Your task to perform on an android device: uninstall "Upside-Cash back on gas & food" Image 0: 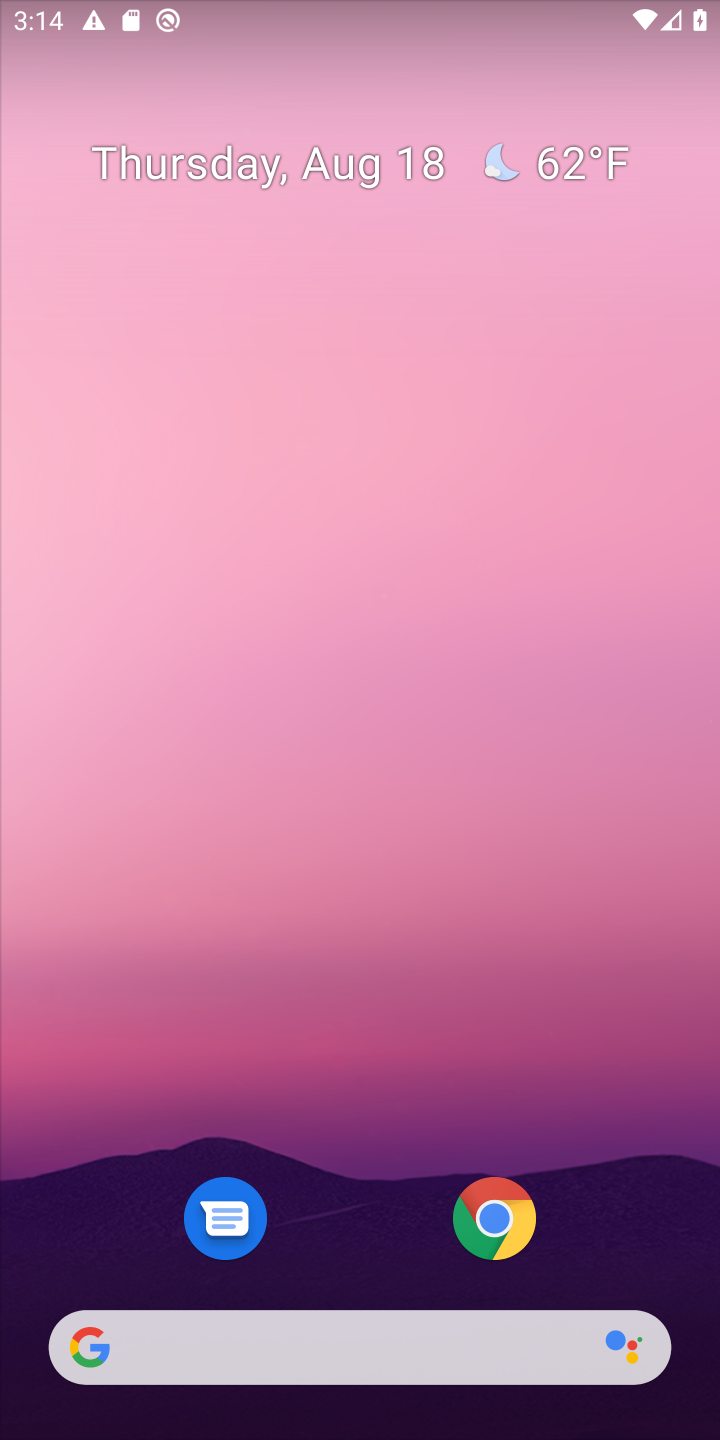
Step 0: drag from (349, 1065) to (281, 216)
Your task to perform on an android device: uninstall "Upside-Cash back on gas & food" Image 1: 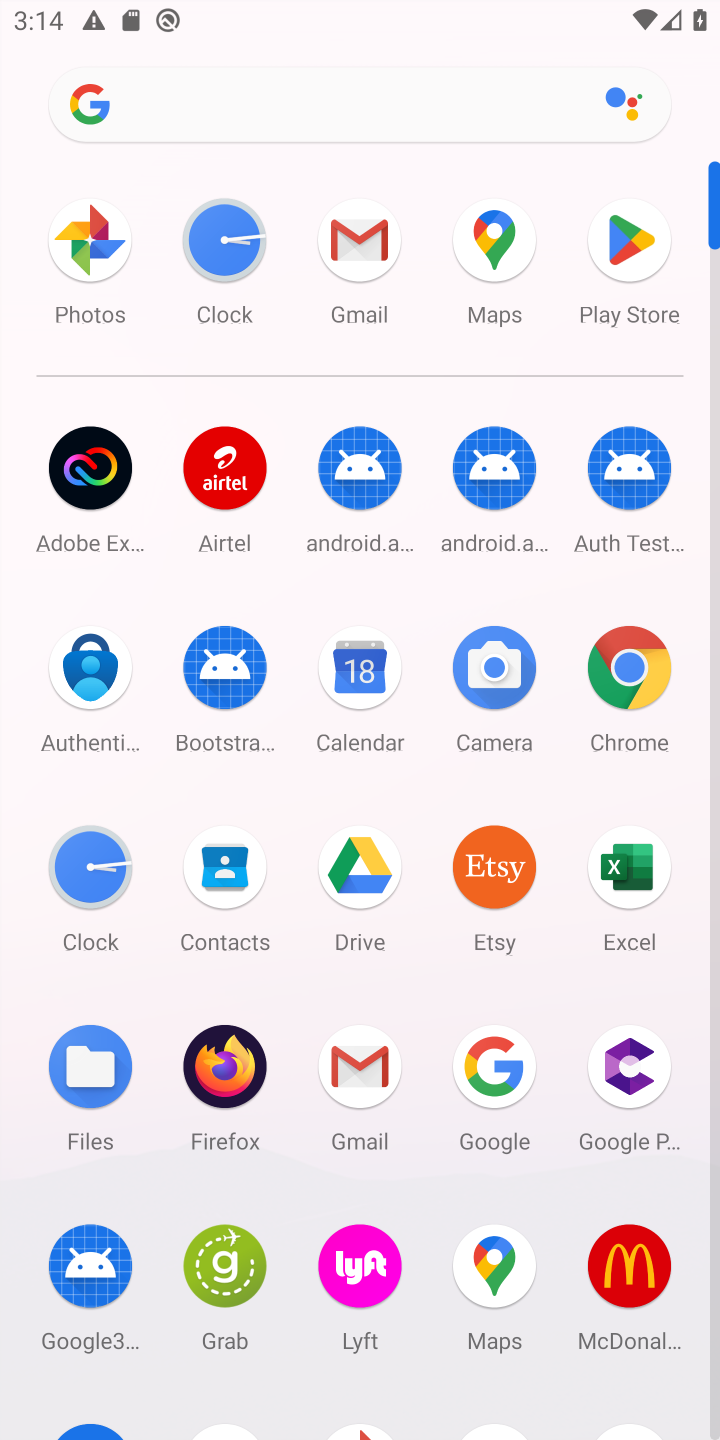
Step 1: click (625, 257)
Your task to perform on an android device: uninstall "Upside-Cash back on gas & food" Image 2: 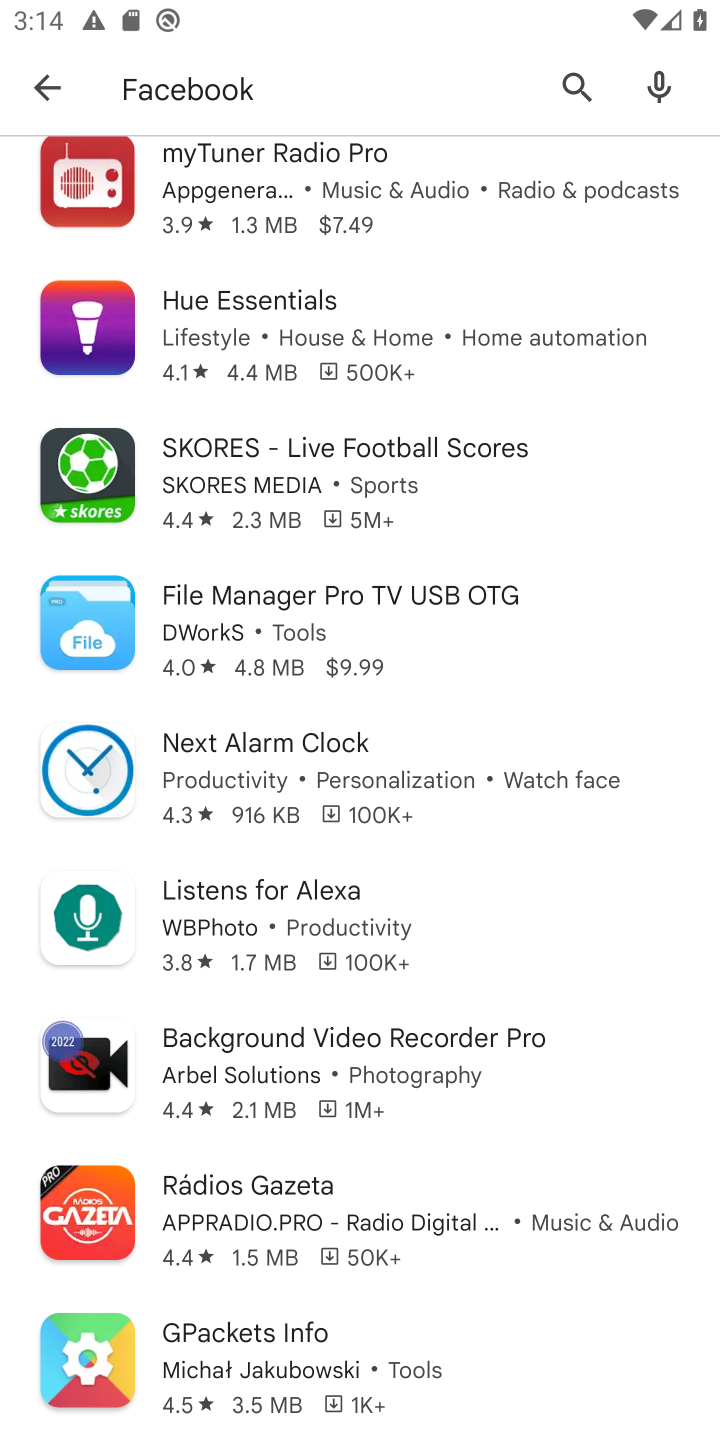
Step 2: click (566, 80)
Your task to perform on an android device: uninstall "Upside-Cash back on gas & food" Image 3: 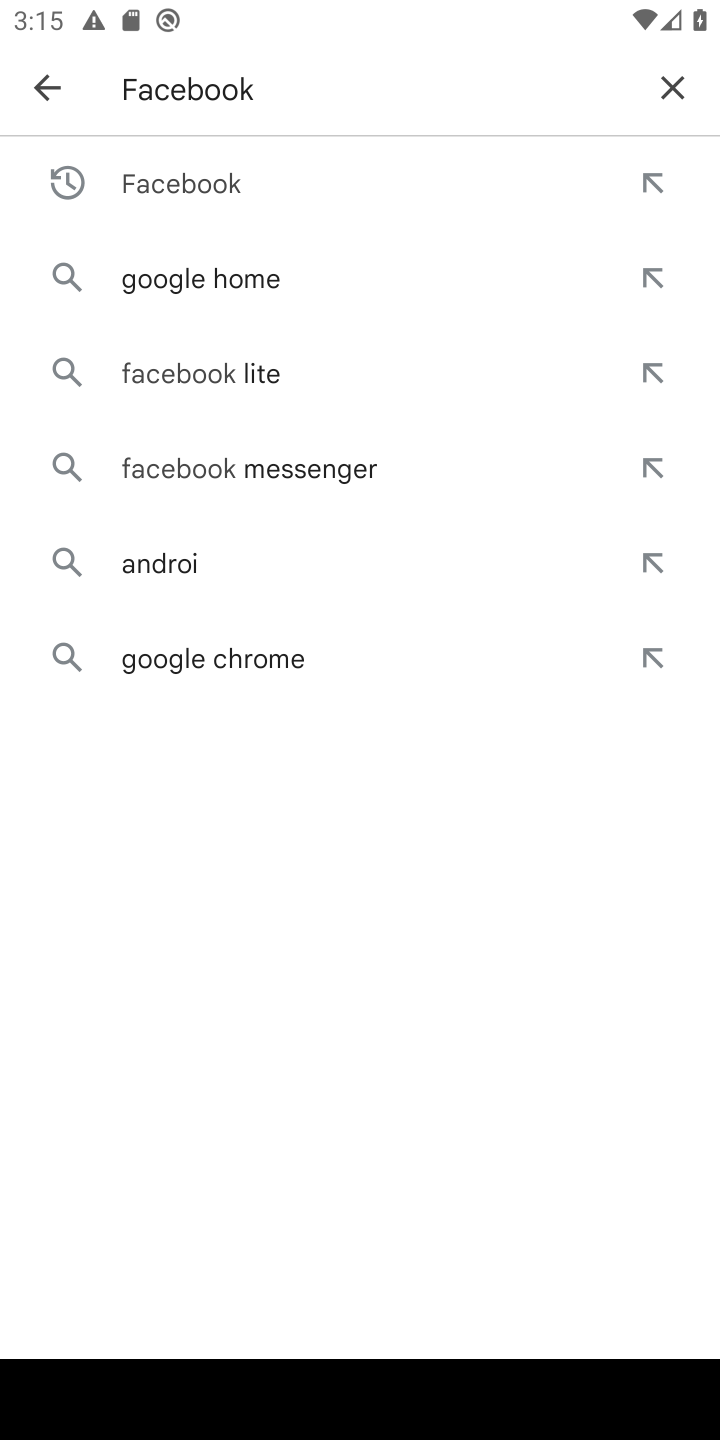
Step 3: click (658, 68)
Your task to perform on an android device: uninstall "Upside-Cash back on gas & food" Image 4: 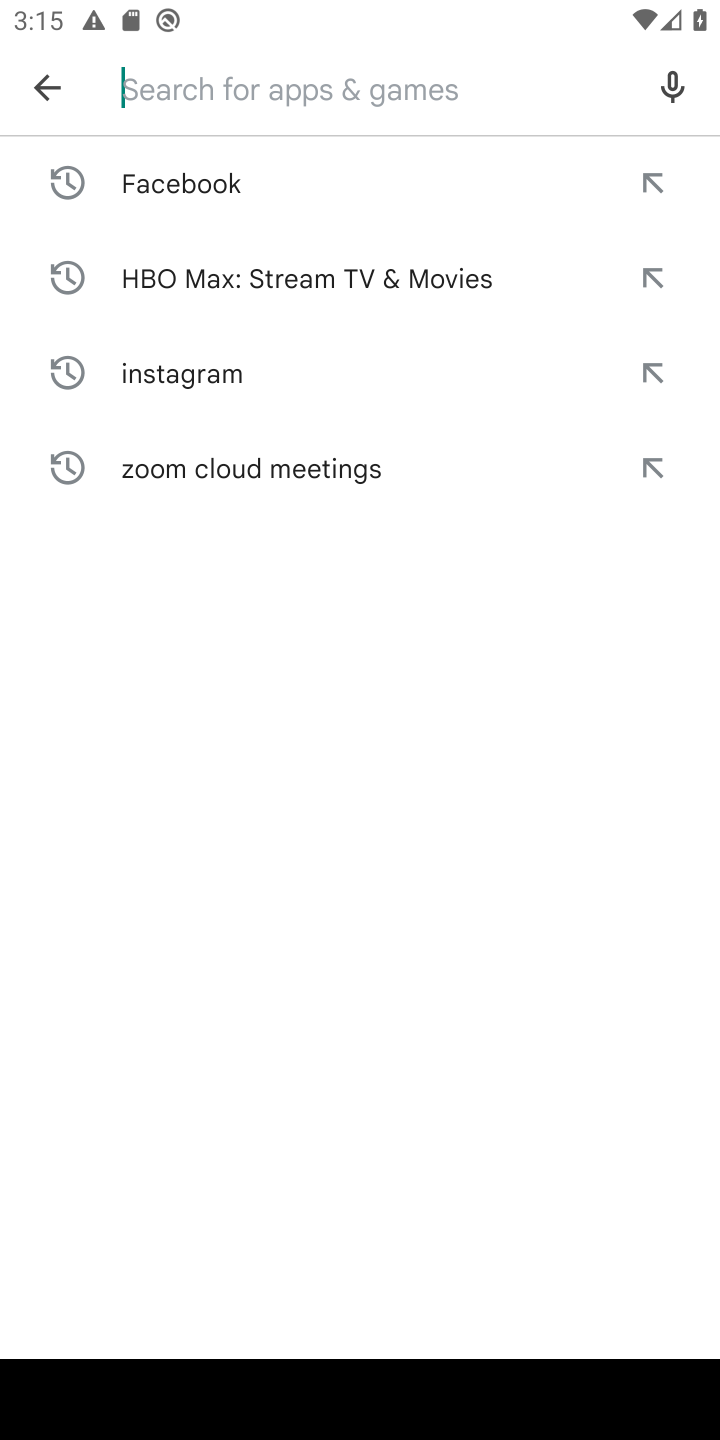
Step 4: type "Upside-Cash back on gas & food"
Your task to perform on an android device: uninstall "Upside-Cash back on gas & food" Image 5: 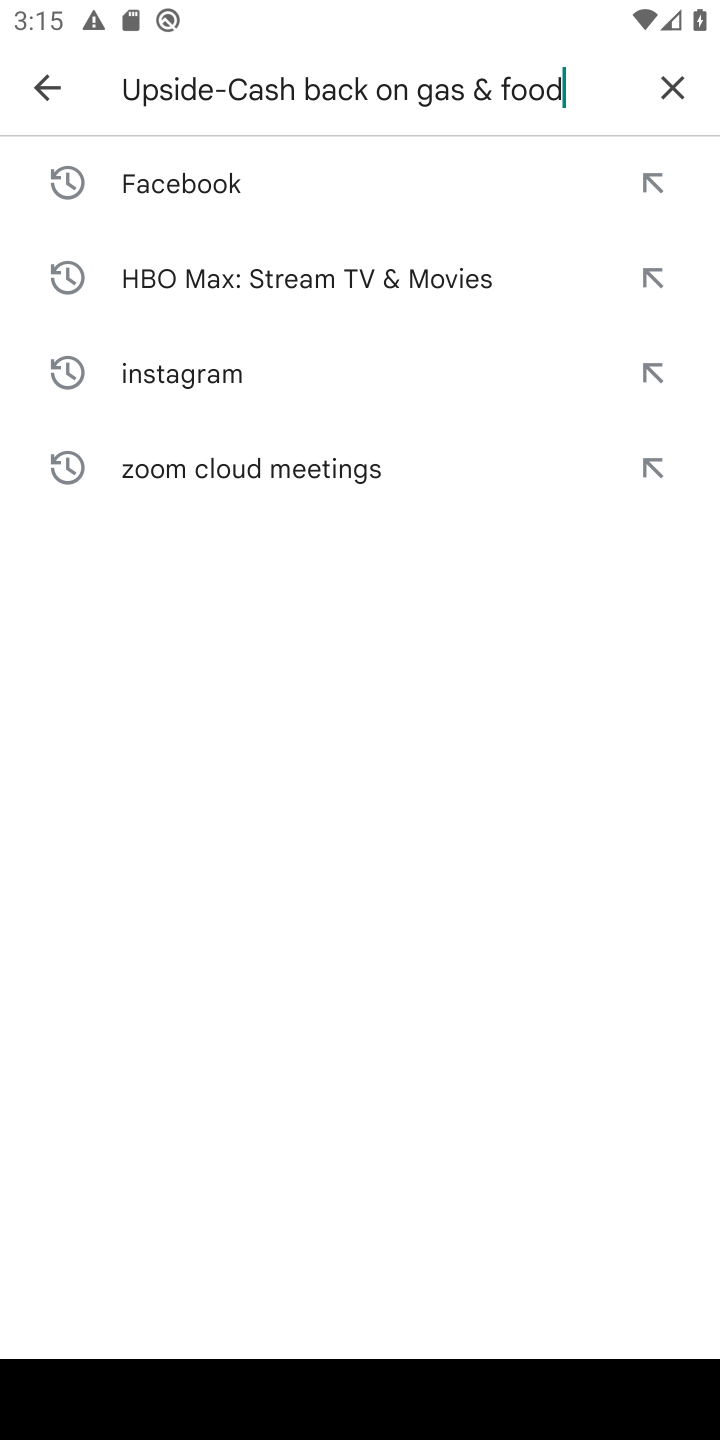
Step 5: type ""
Your task to perform on an android device: uninstall "Upside-Cash back on gas & food" Image 6: 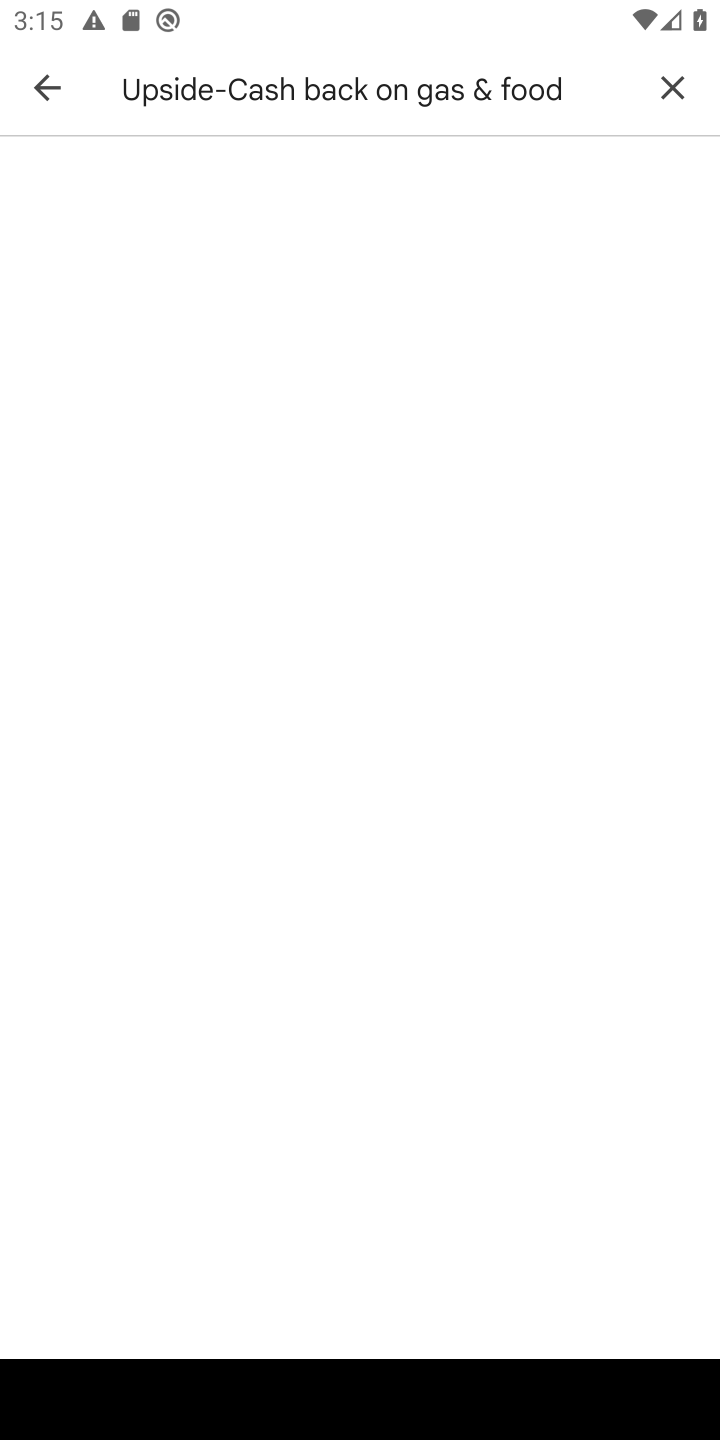
Step 6: task complete